Your task to perform on an android device: visit the assistant section in the google photos Image 0: 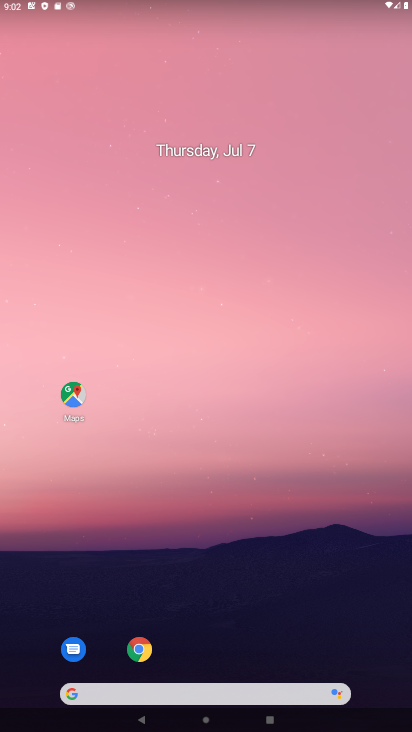
Step 0: drag from (231, 722) to (170, 90)
Your task to perform on an android device: visit the assistant section in the google photos Image 1: 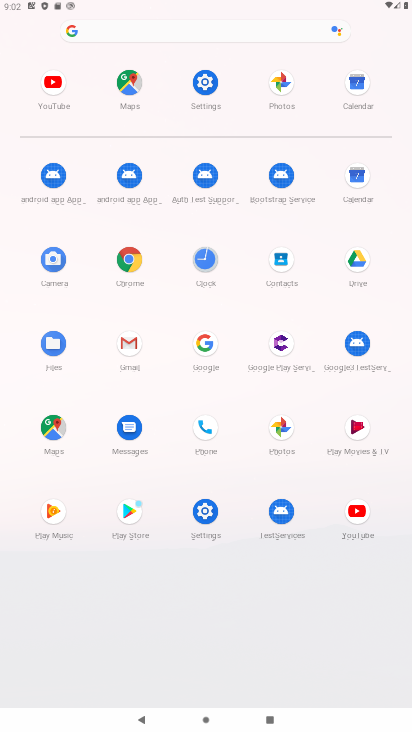
Step 1: click (281, 425)
Your task to perform on an android device: visit the assistant section in the google photos Image 2: 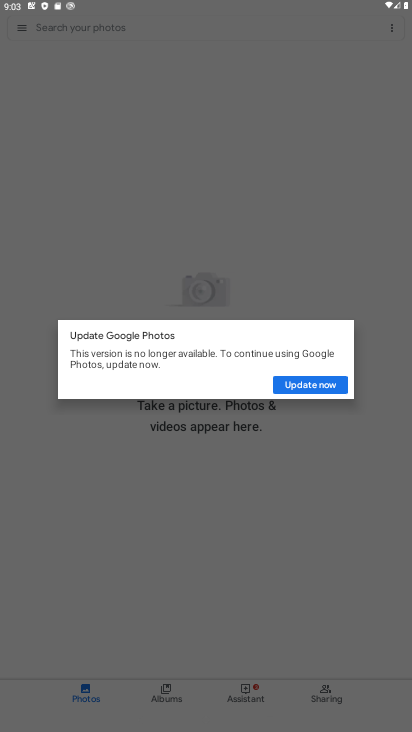
Step 2: task complete